Your task to perform on an android device: check storage Image 0: 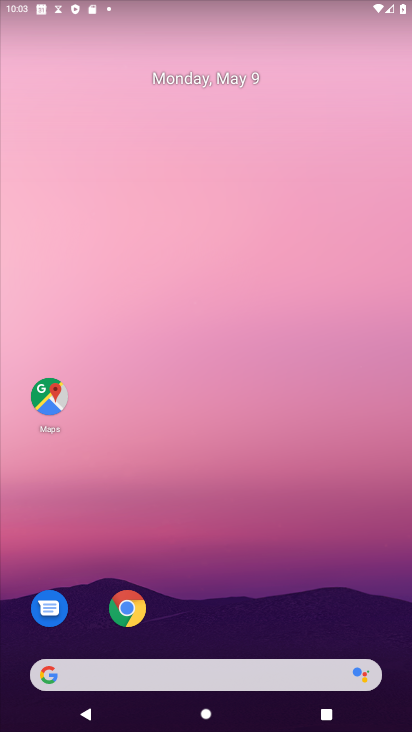
Step 0: drag from (180, 559) to (214, 170)
Your task to perform on an android device: check storage Image 1: 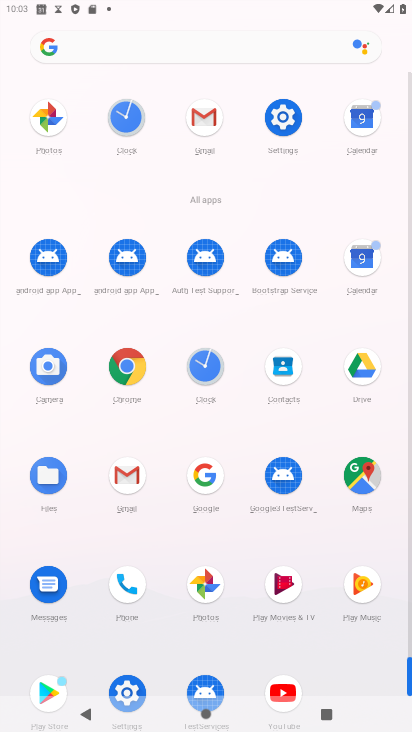
Step 1: click (281, 123)
Your task to perform on an android device: check storage Image 2: 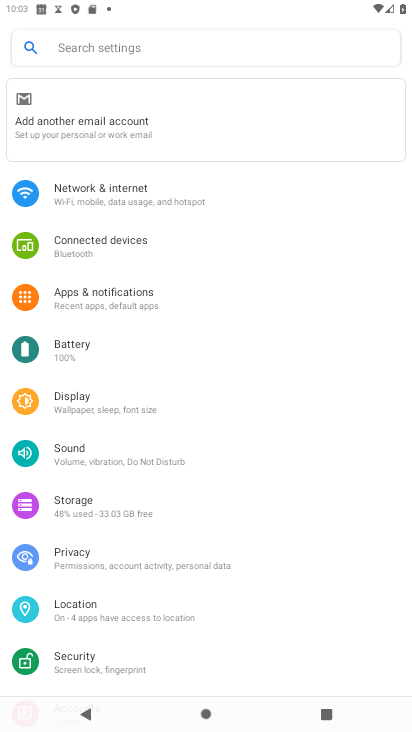
Step 2: click (124, 504)
Your task to perform on an android device: check storage Image 3: 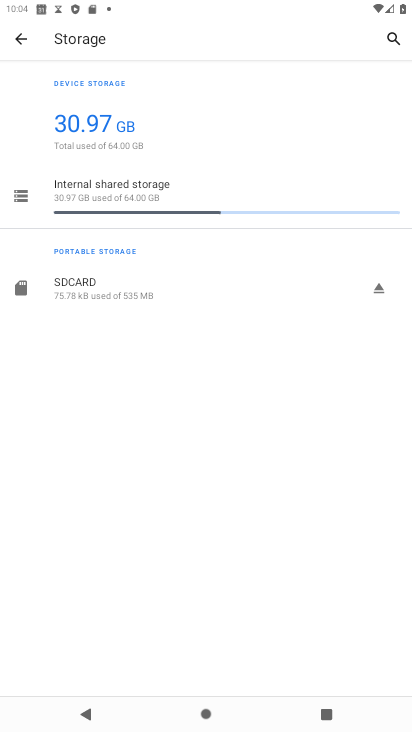
Step 3: task complete